Your task to perform on an android device: set an alarm Image 0: 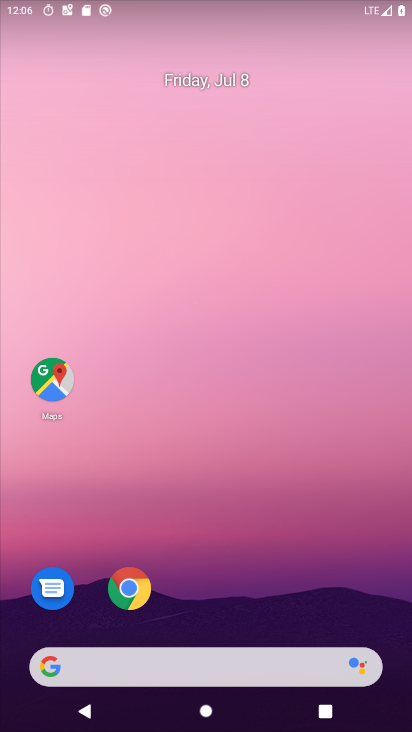
Step 0: drag from (193, 666) to (255, 88)
Your task to perform on an android device: set an alarm Image 1: 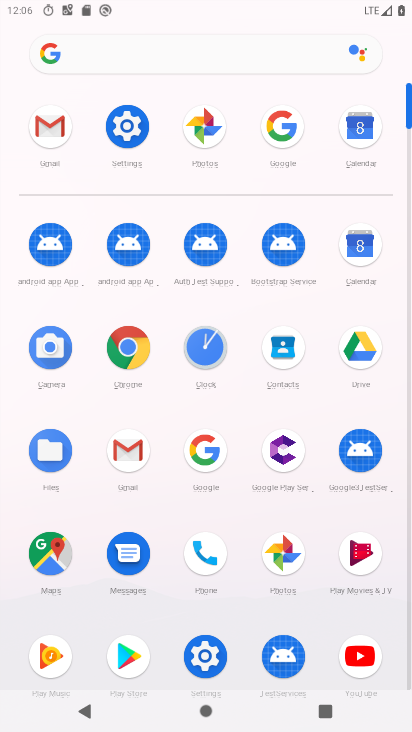
Step 1: click (207, 354)
Your task to perform on an android device: set an alarm Image 2: 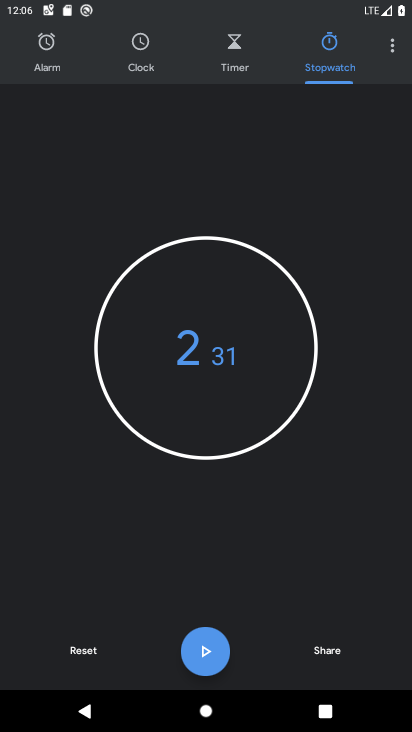
Step 2: click (36, 51)
Your task to perform on an android device: set an alarm Image 3: 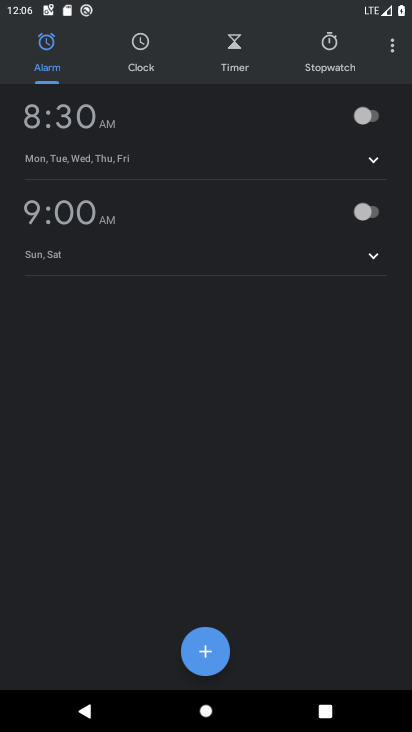
Step 3: click (372, 118)
Your task to perform on an android device: set an alarm Image 4: 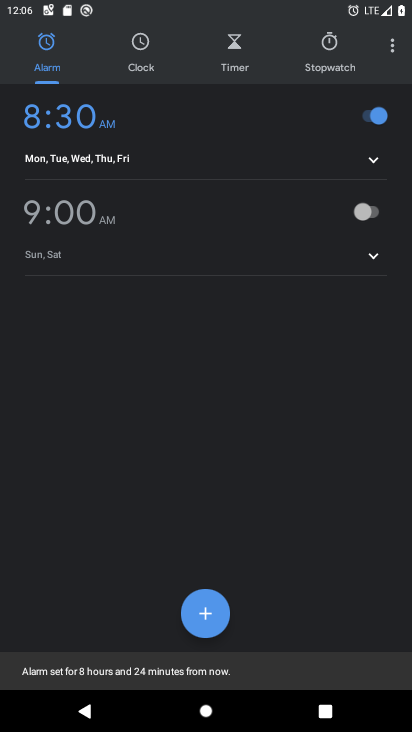
Step 4: task complete